Your task to perform on an android device: allow notifications from all sites in the chrome app Image 0: 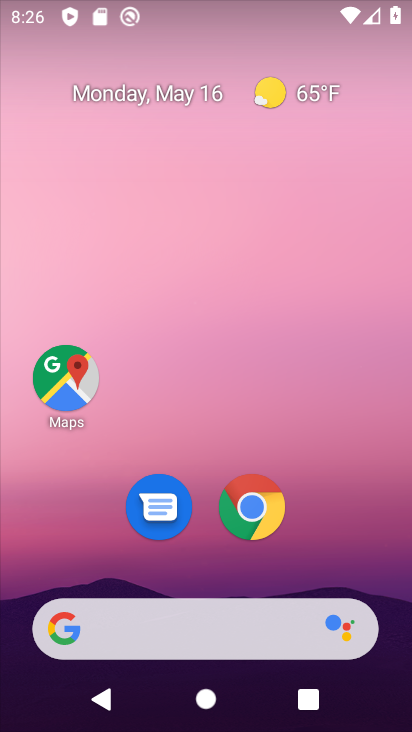
Step 0: drag from (194, 568) to (156, 97)
Your task to perform on an android device: allow notifications from all sites in the chrome app Image 1: 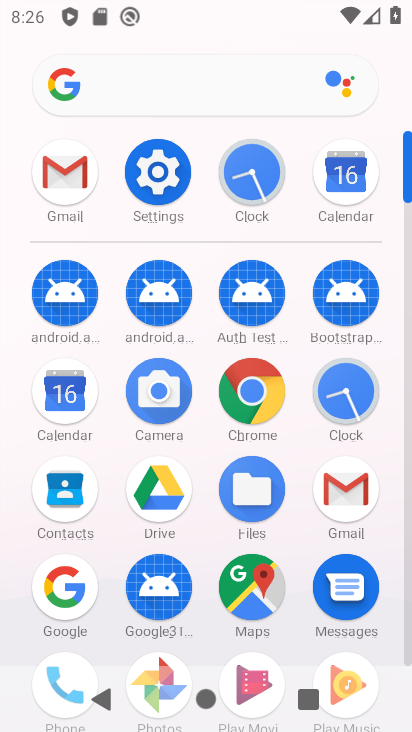
Step 1: click (239, 387)
Your task to perform on an android device: allow notifications from all sites in the chrome app Image 2: 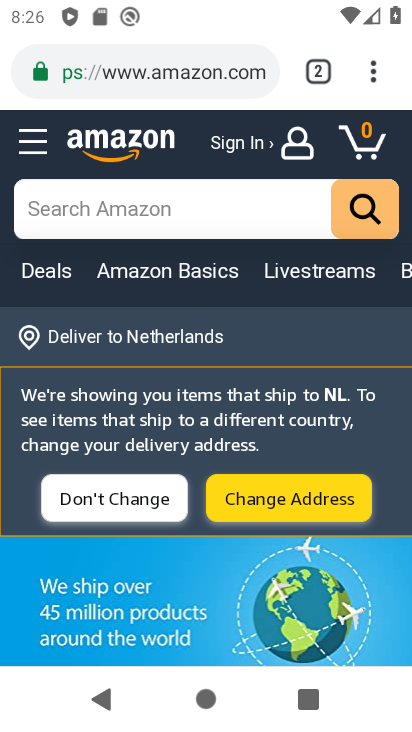
Step 2: click (372, 82)
Your task to perform on an android device: allow notifications from all sites in the chrome app Image 3: 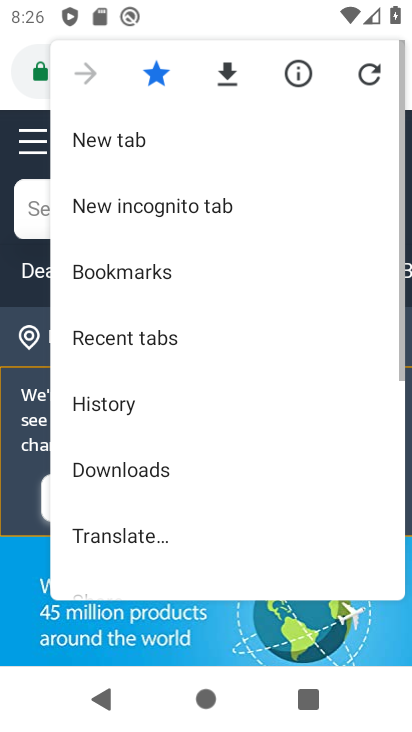
Step 3: drag from (204, 456) to (199, 82)
Your task to perform on an android device: allow notifications from all sites in the chrome app Image 4: 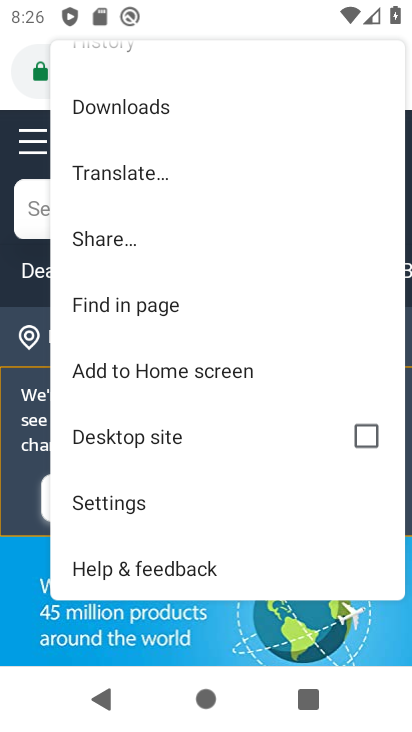
Step 4: click (119, 506)
Your task to perform on an android device: allow notifications from all sites in the chrome app Image 5: 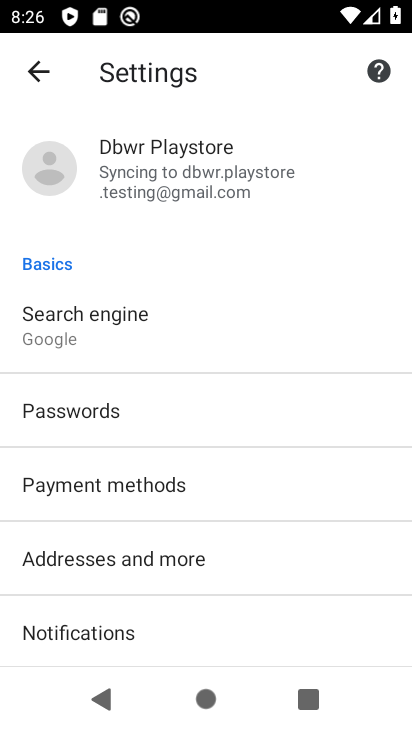
Step 5: drag from (182, 452) to (151, 271)
Your task to perform on an android device: allow notifications from all sites in the chrome app Image 6: 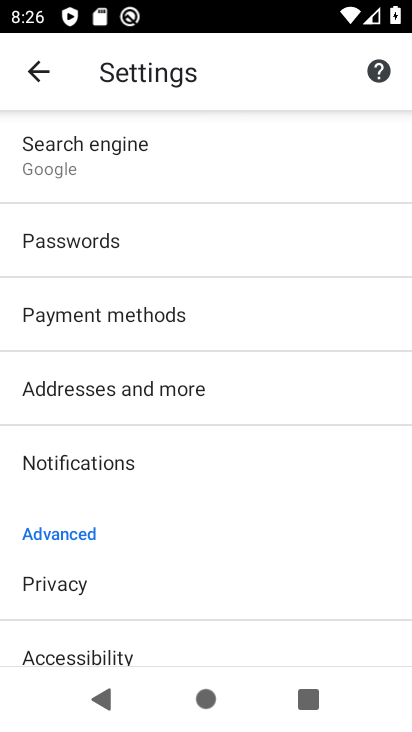
Step 6: drag from (160, 573) to (137, 321)
Your task to perform on an android device: allow notifications from all sites in the chrome app Image 7: 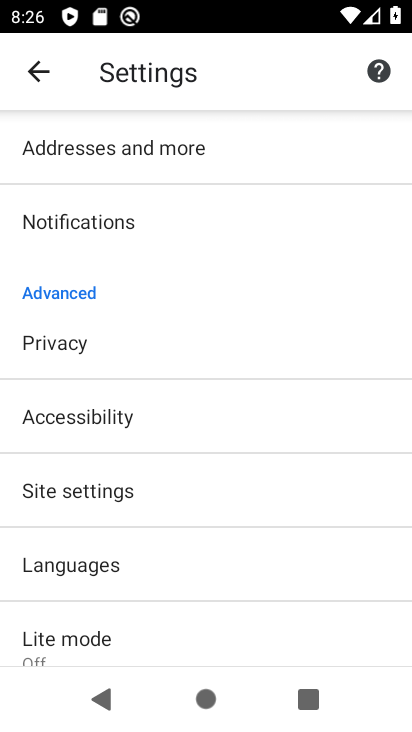
Step 7: click (78, 501)
Your task to perform on an android device: allow notifications from all sites in the chrome app Image 8: 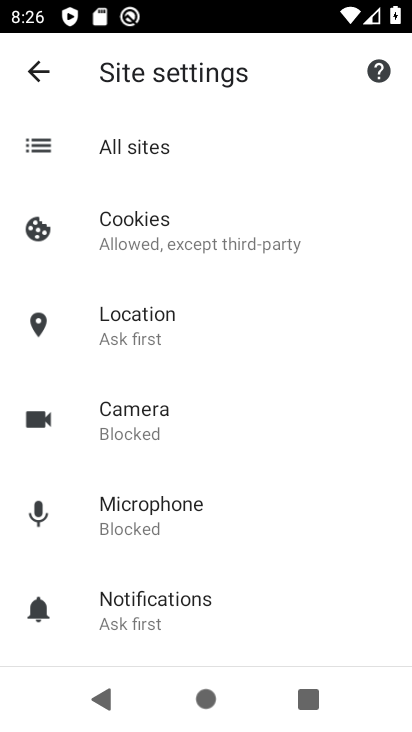
Step 8: drag from (187, 491) to (158, 294)
Your task to perform on an android device: allow notifications from all sites in the chrome app Image 9: 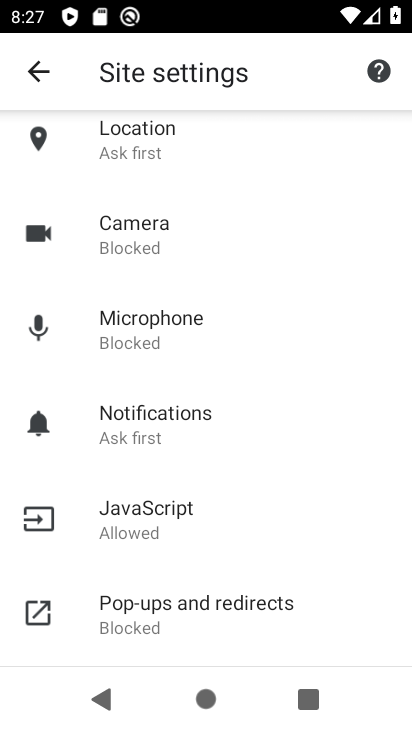
Step 9: click (138, 438)
Your task to perform on an android device: allow notifications from all sites in the chrome app Image 10: 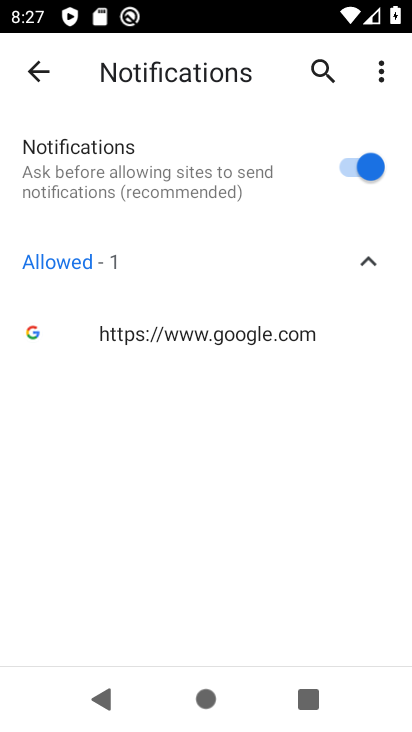
Step 10: task complete